Your task to perform on an android device: turn on improve location accuracy Image 0: 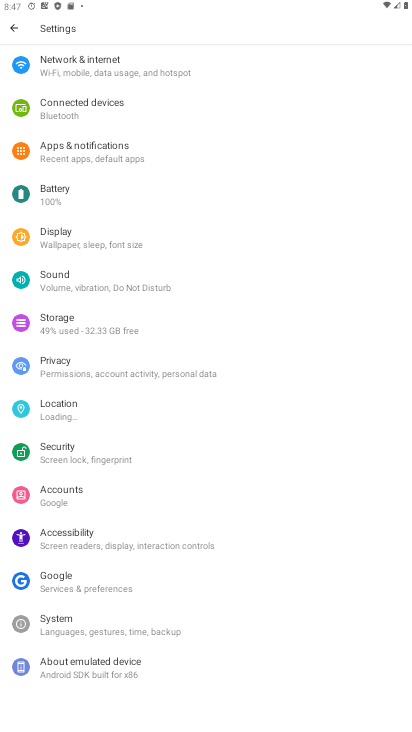
Step 0: press home button
Your task to perform on an android device: turn on improve location accuracy Image 1: 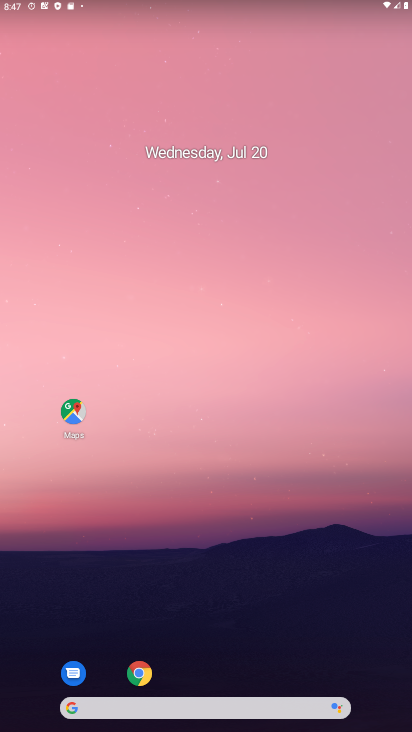
Step 1: drag from (391, 680) to (229, 139)
Your task to perform on an android device: turn on improve location accuracy Image 2: 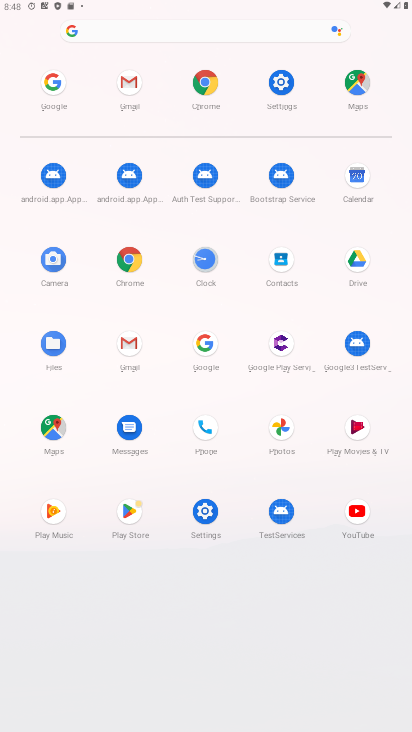
Step 2: click (204, 525)
Your task to perform on an android device: turn on improve location accuracy Image 3: 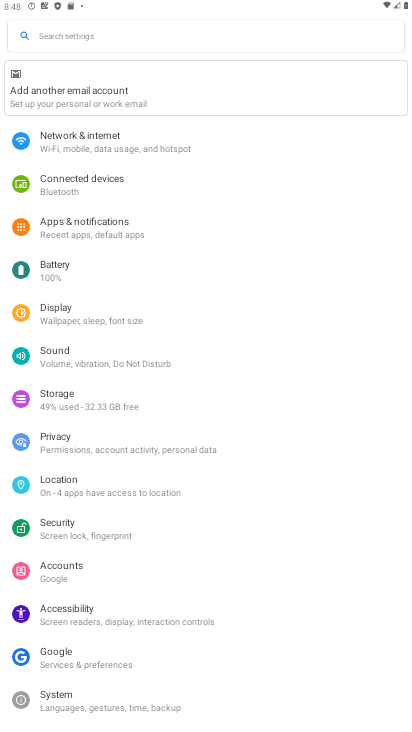
Step 3: click (76, 487)
Your task to perform on an android device: turn on improve location accuracy Image 4: 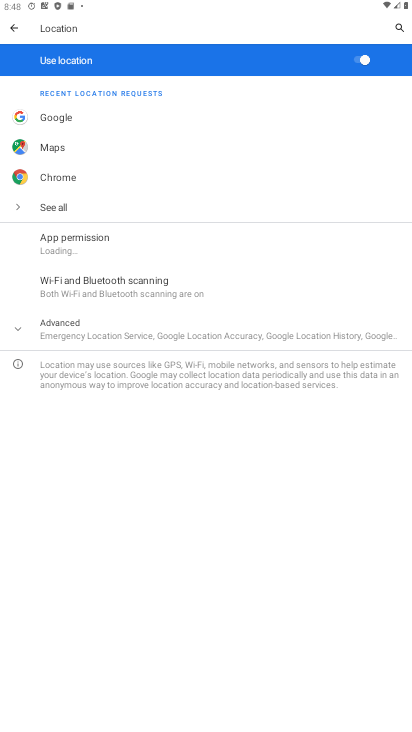
Step 4: click (100, 326)
Your task to perform on an android device: turn on improve location accuracy Image 5: 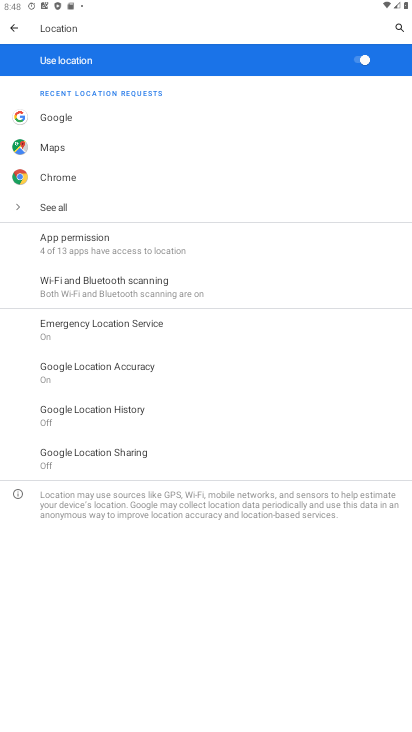
Step 5: click (116, 370)
Your task to perform on an android device: turn on improve location accuracy Image 6: 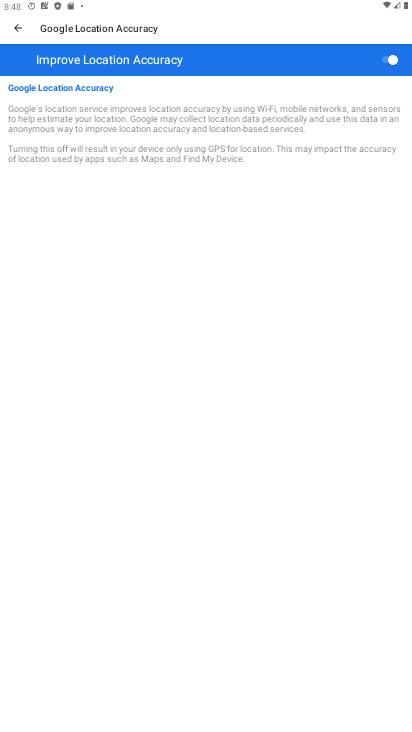
Step 6: task complete